Your task to perform on an android device: Go to Yahoo.com Image 0: 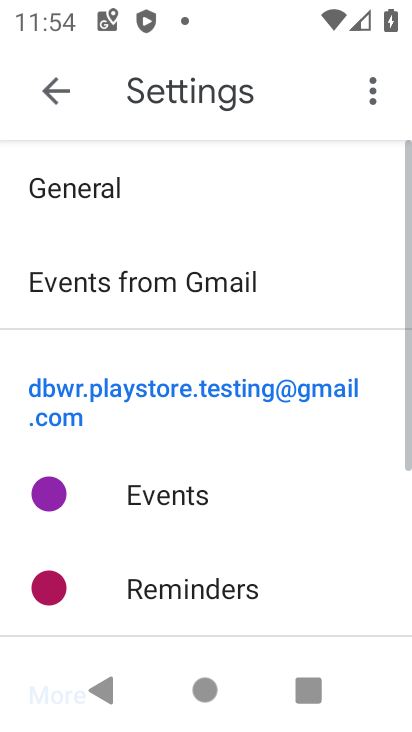
Step 0: drag from (186, 591) to (221, 143)
Your task to perform on an android device: Go to Yahoo.com Image 1: 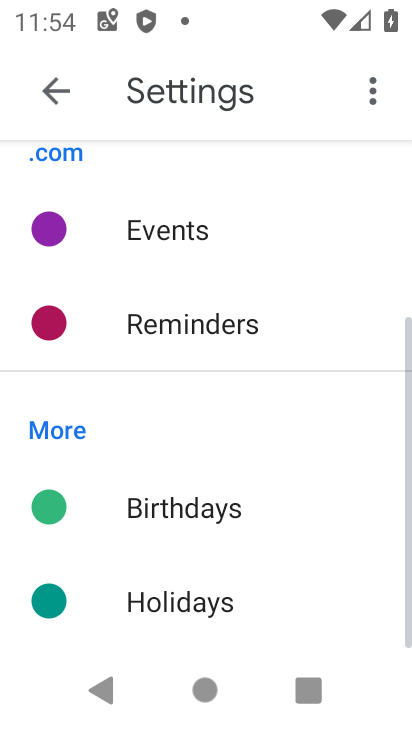
Step 1: press home button
Your task to perform on an android device: Go to Yahoo.com Image 2: 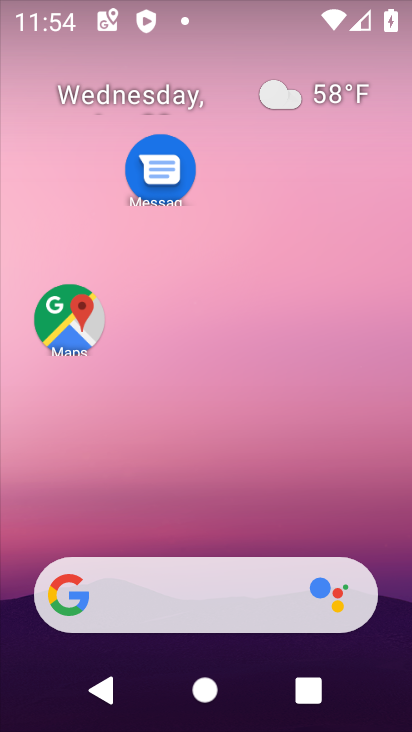
Step 2: drag from (216, 490) to (266, 170)
Your task to perform on an android device: Go to Yahoo.com Image 3: 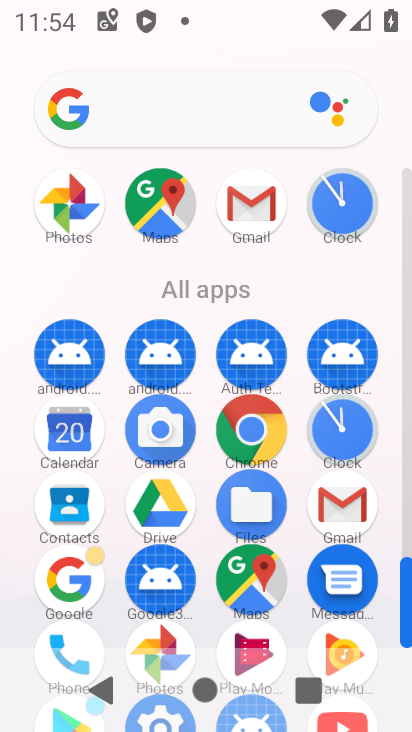
Step 3: click (251, 415)
Your task to perform on an android device: Go to Yahoo.com Image 4: 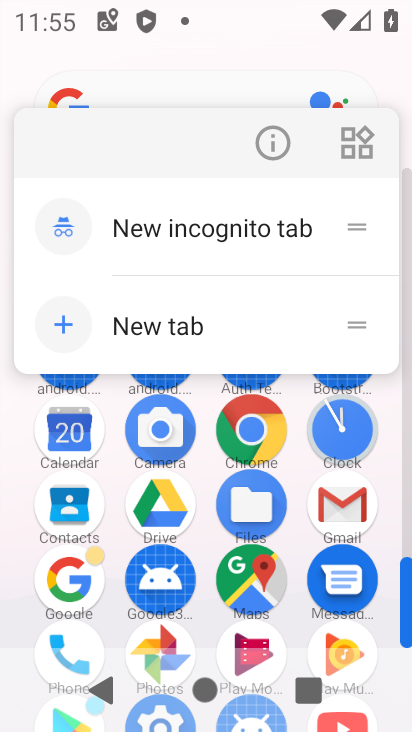
Step 4: click (253, 140)
Your task to perform on an android device: Go to Yahoo.com Image 5: 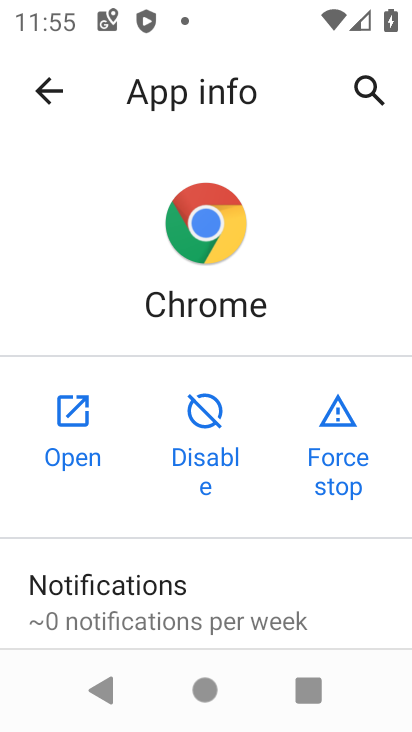
Step 5: click (56, 431)
Your task to perform on an android device: Go to Yahoo.com Image 6: 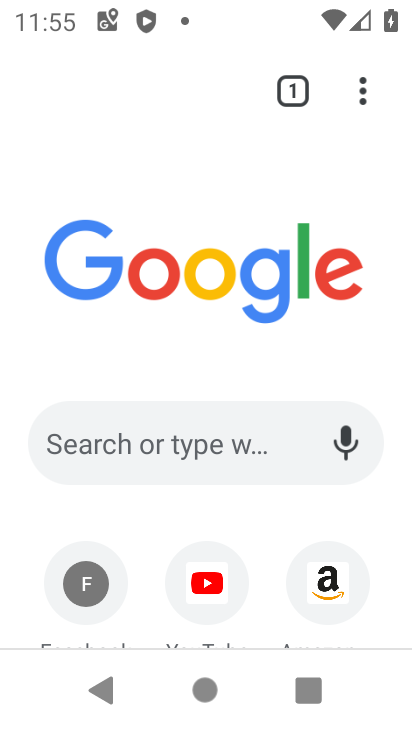
Step 6: click (177, 448)
Your task to perform on an android device: Go to Yahoo.com Image 7: 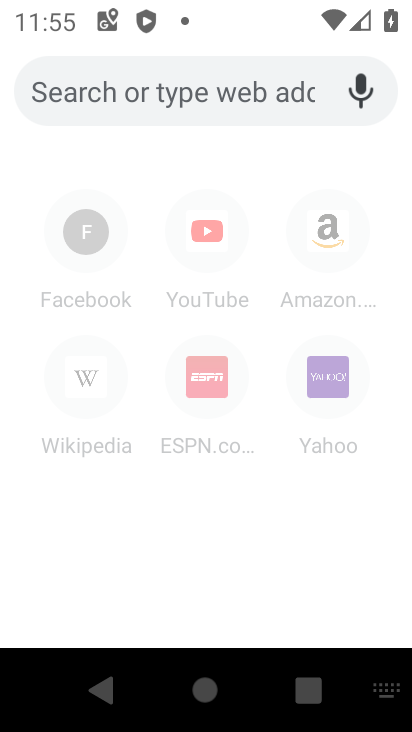
Step 7: type "yahoo"
Your task to perform on an android device: Go to Yahoo.com Image 8: 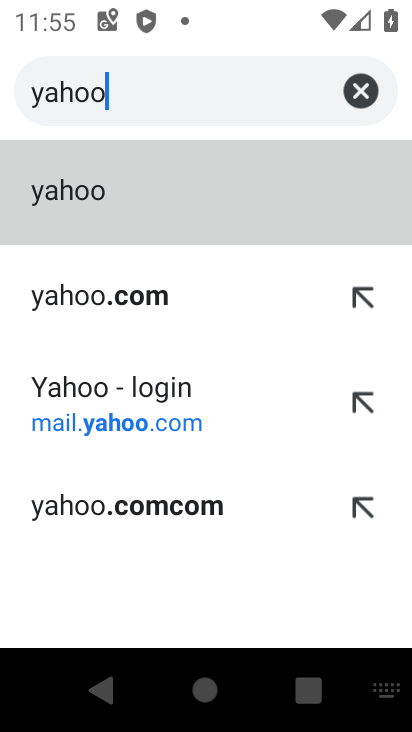
Step 8: click (100, 235)
Your task to perform on an android device: Go to Yahoo.com Image 9: 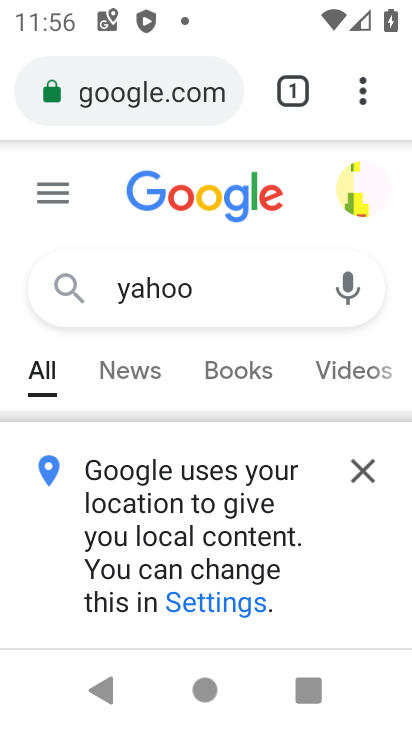
Step 9: task complete